Your task to perform on an android device: turn off sleep mode Image 0: 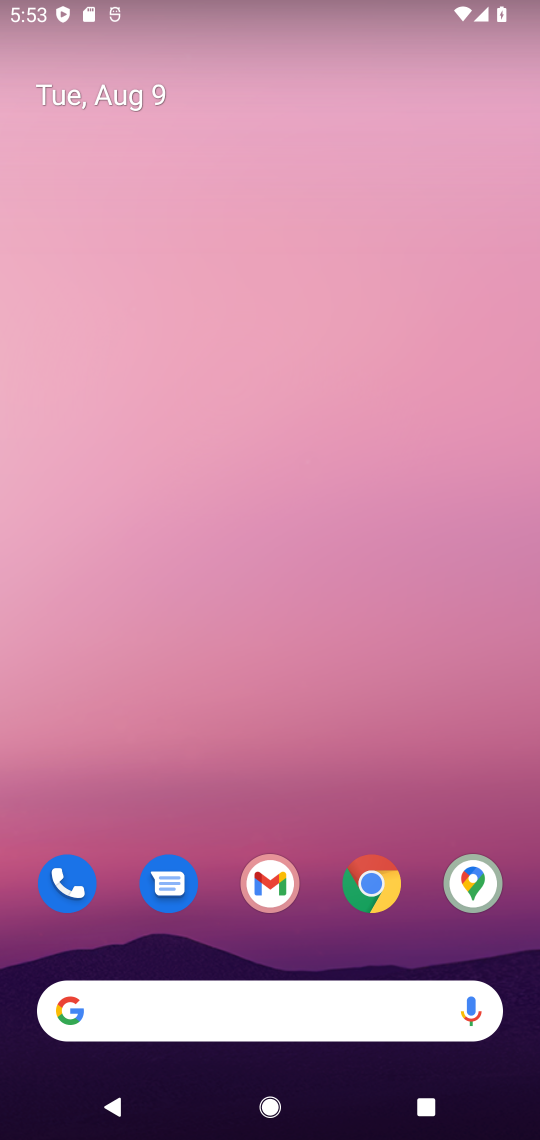
Step 0: drag from (265, 554) to (260, 259)
Your task to perform on an android device: turn off sleep mode Image 1: 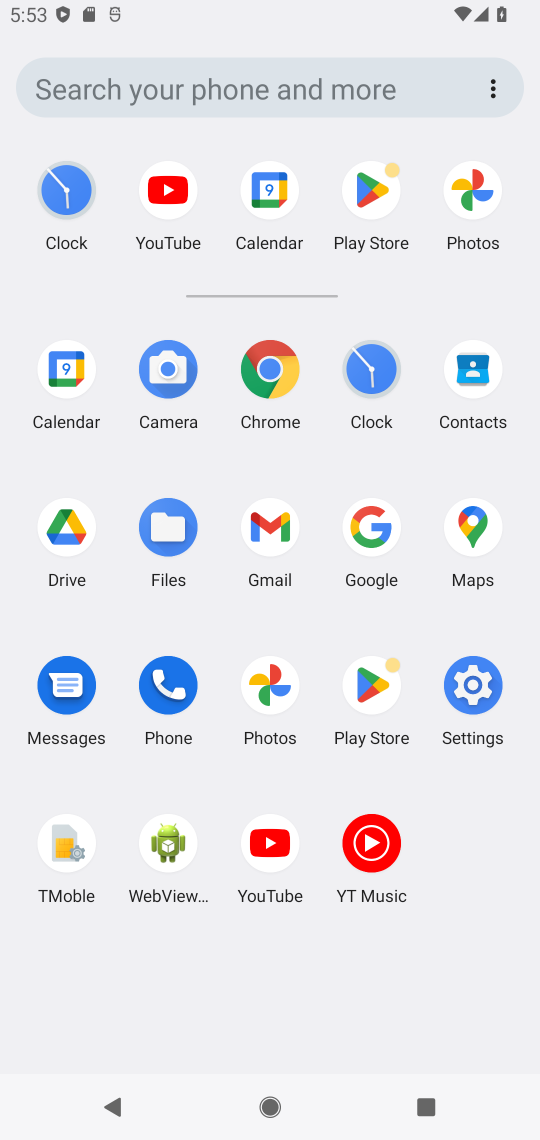
Step 1: click (445, 702)
Your task to perform on an android device: turn off sleep mode Image 2: 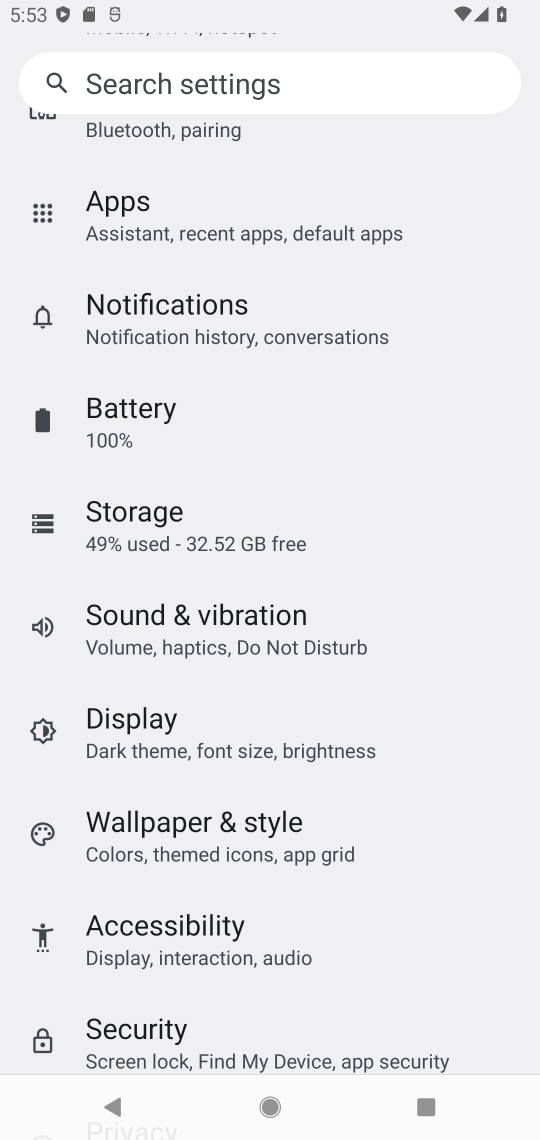
Step 2: drag from (260, 338) to (287, 819)
Your task to perform on an android device: turn off sleep mode Image 3: 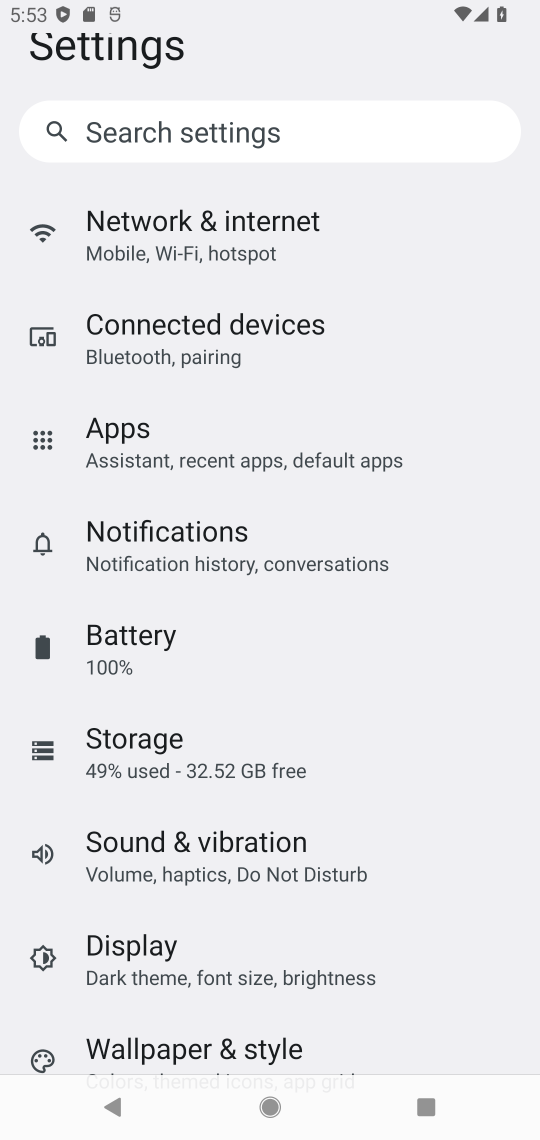
Step 3: click (224, 944)
Your task to perform on an android device: turn off sleep mode Image 4: 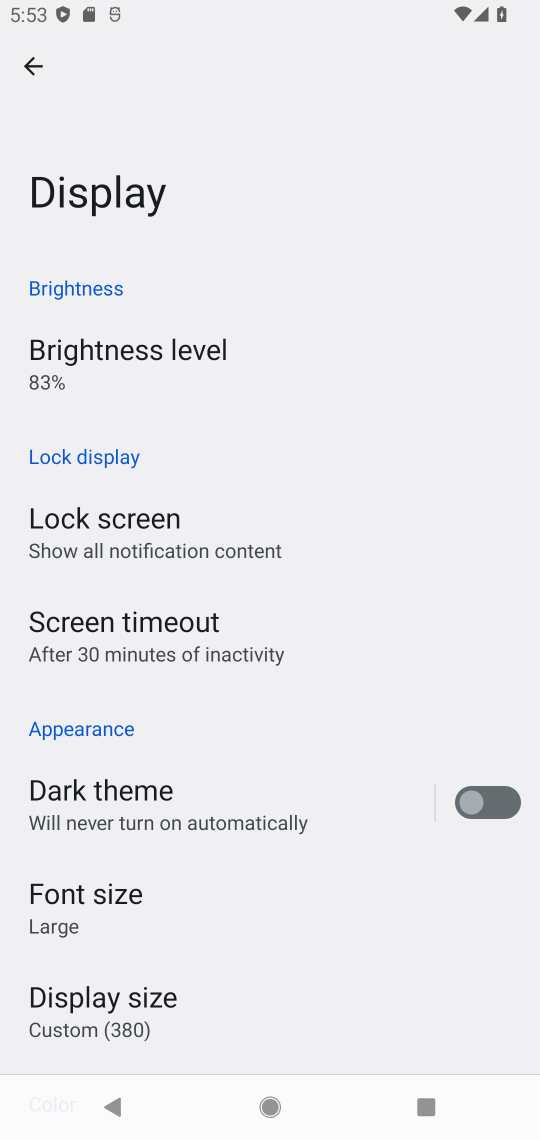
Step 4: click (148, 625)
Your task to perform on an android device: turn off sleep mode Image 5: 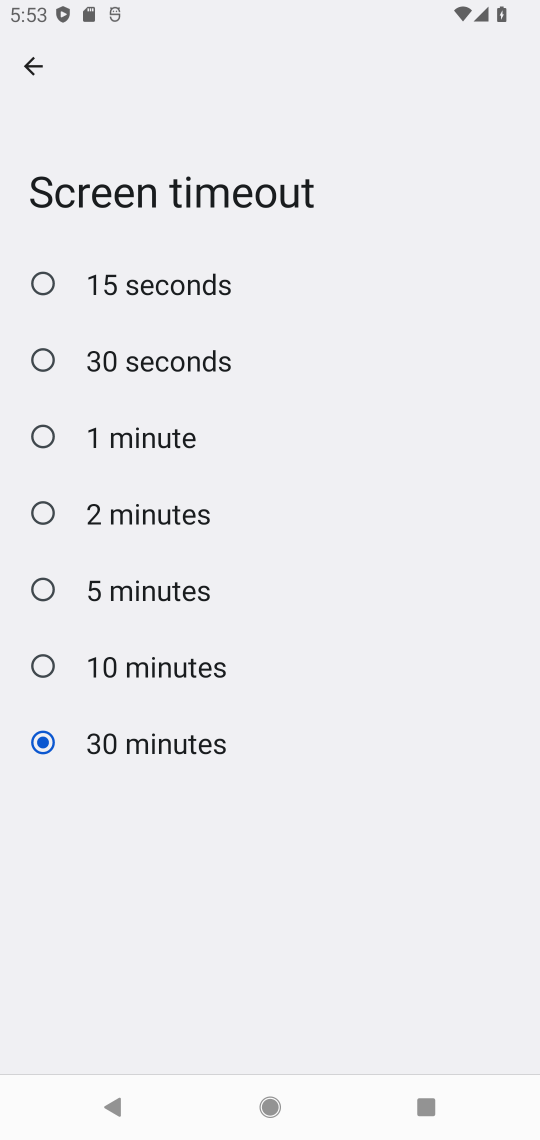
Step 5: click (140, 414)
Your task to perform on an android device: turn off sleep mode Image 6: 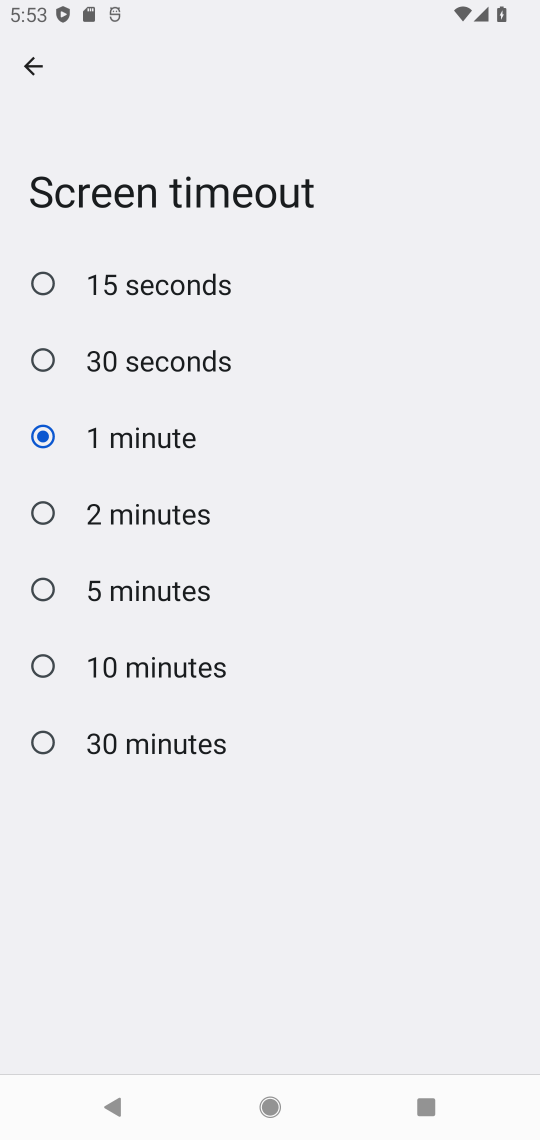
Step 6: task complete